Your task to perform on an android device: allow cookies in the chrome app Image 0: 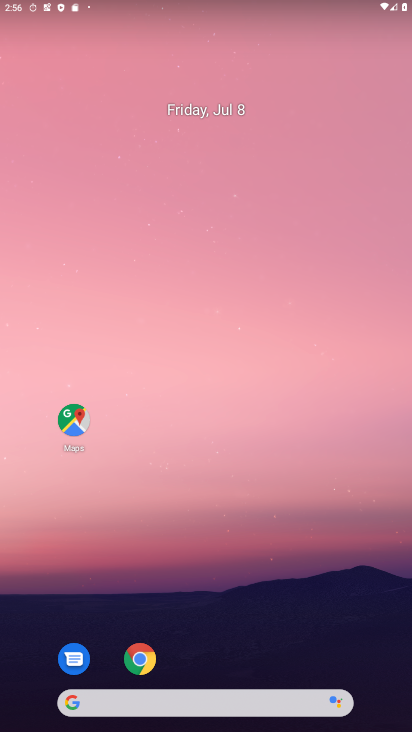
Step 0: click (137, 656)
Your task to perform on an android device: allow cookies in the chrome app Image 1: 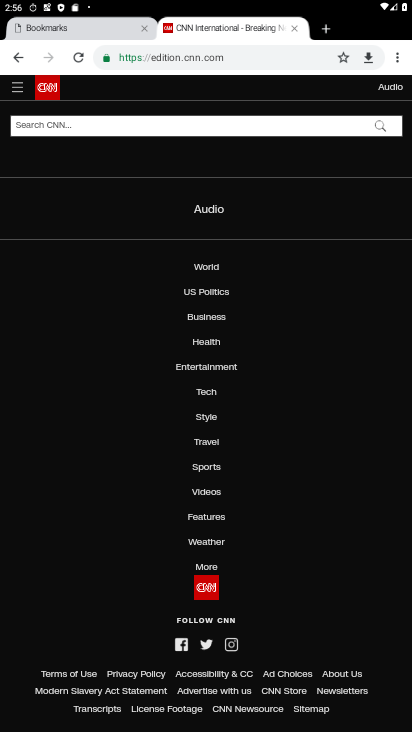
Step 1: click (402, 56)
Your task to perform on an android device: allow cookies in the chrome app Image 2: 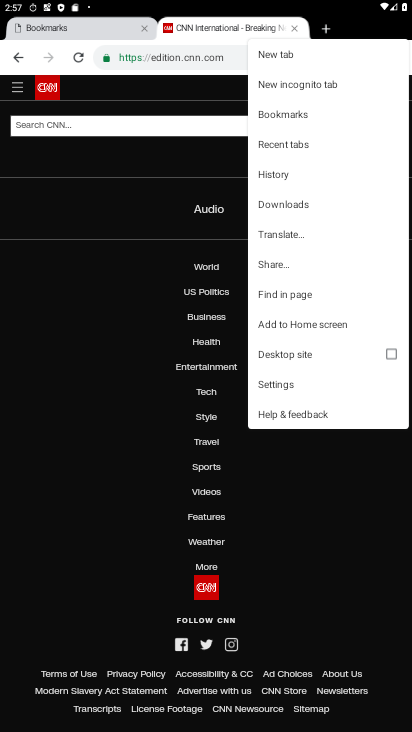
Step 2: click (288, 383)
Your task to perform on an android device: allow cookies in the chrome app Image 3: 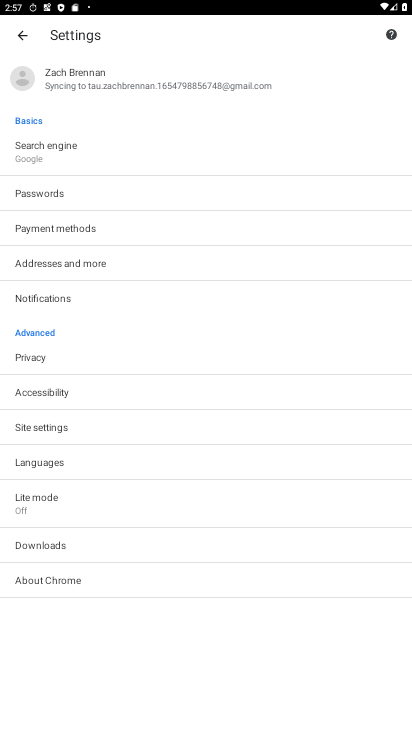
Step 3: click (65, 429)
Your task to perform on an android device: allow cookies in the chrome app Image 4: 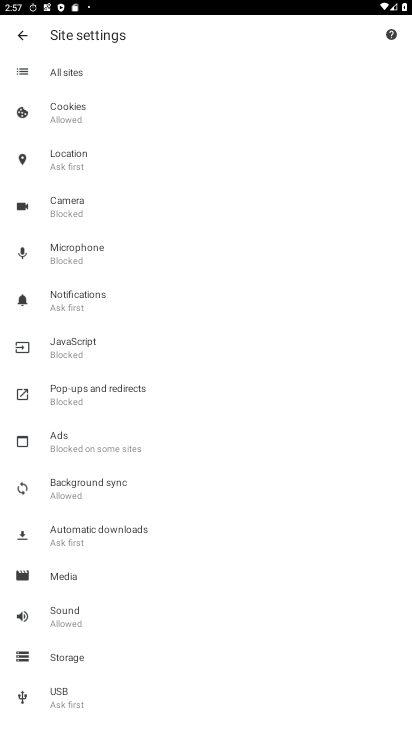
Step 4: click (84, 119)
Your task to perform on an android device: allow cookies in the chrome app Image 5: 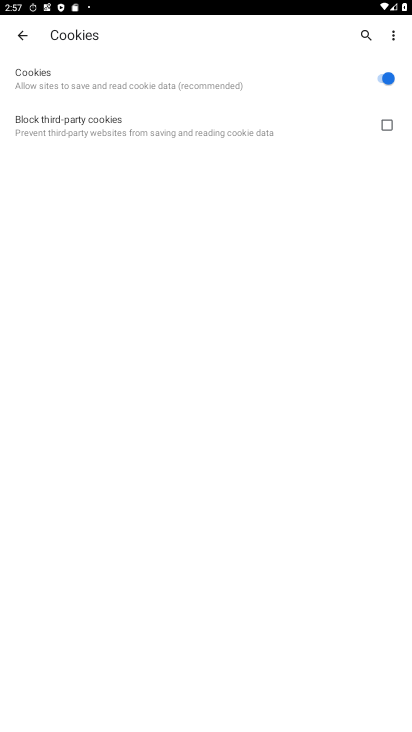
Step 5: task complete